Your task to perform on an android device: Set the phone to "Do not disturb". Image 0: 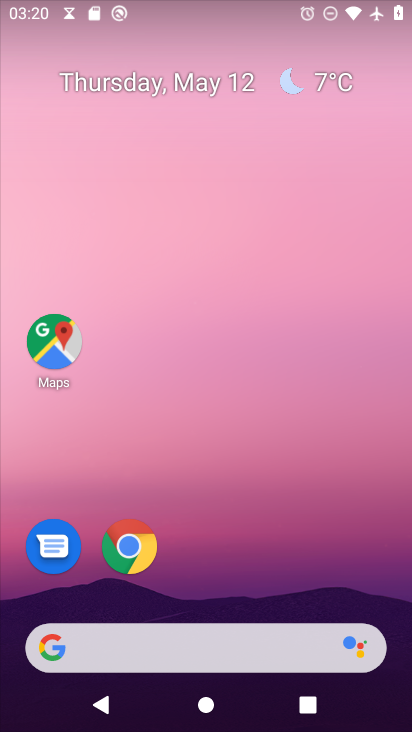
Step 0: press home button
Your task to perform on an android device: Set the phone to "Do not disturb". Image 1: 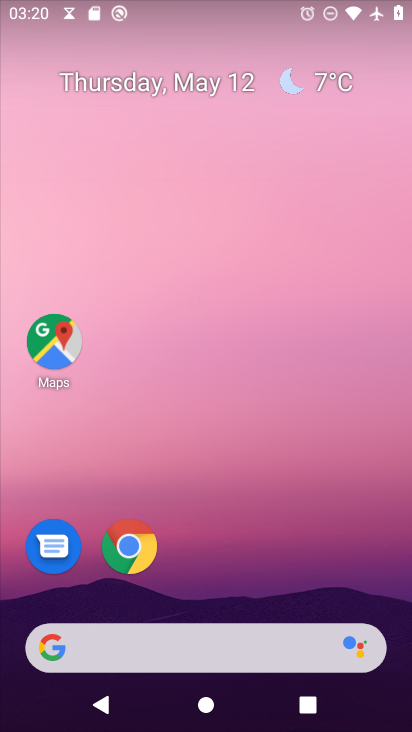
Step 1: drag from (147, 646) to (307, 84)
Your task to perform on an android device: Set the phone to "Do not disturb". Image 2: 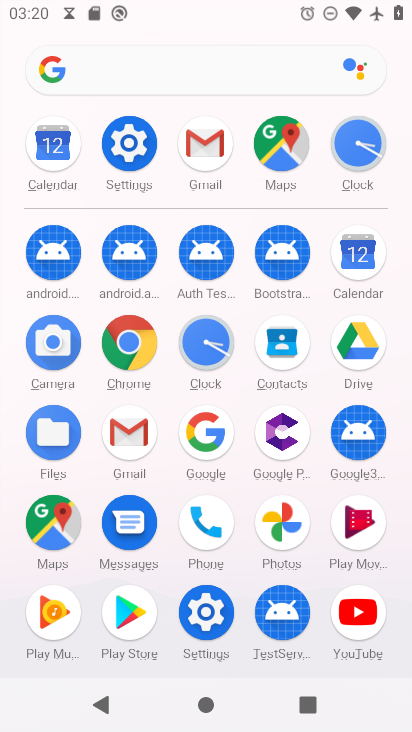
Step 2: click (131, 147)
Your task to perform on an android device: Set the phone to "Do not disturb". Image 3: 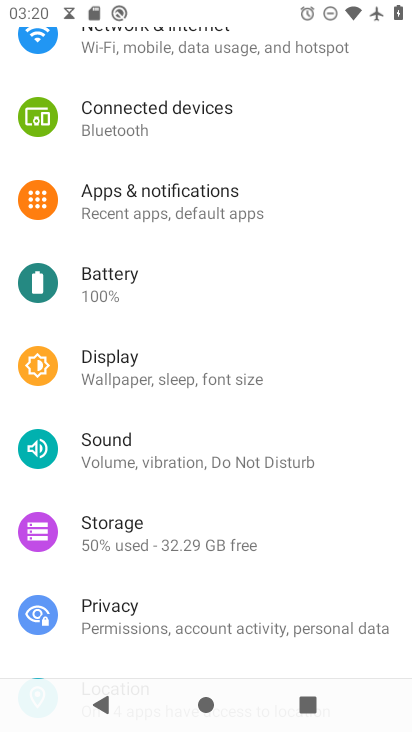
Step 3: click (157, 466)
Your task to perform on an android device: Set the phone to "Do not disturb". Image 4: 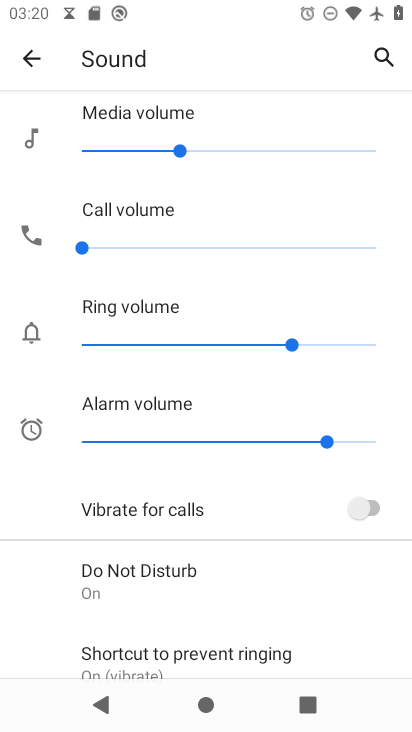
Step 4: click (89, 581)
Your task to perform on an android device: Set the phone to "Do not disturb". Image 5: 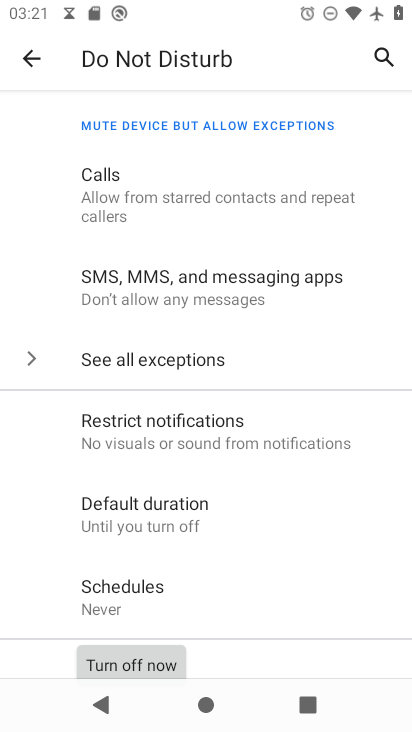
Step 5: task complete